Your task to perform on an android device: open the mobile data screen to see how much data has been used Image 0: 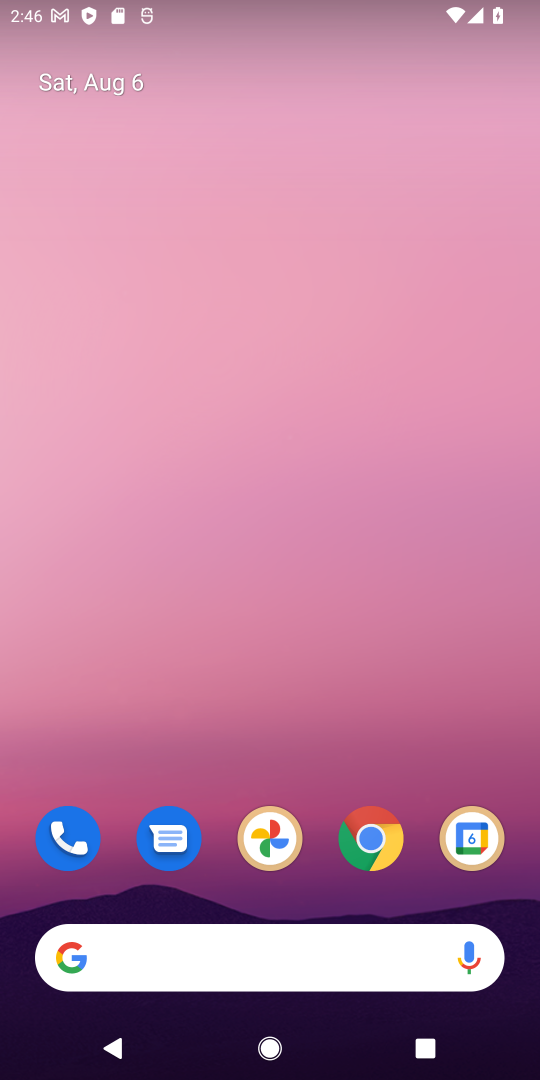
Step 0: drag from (88, 789) to (260, 427)
Your task to perform on an android device: open the mobile data screen to see how much data has been used Image 1: 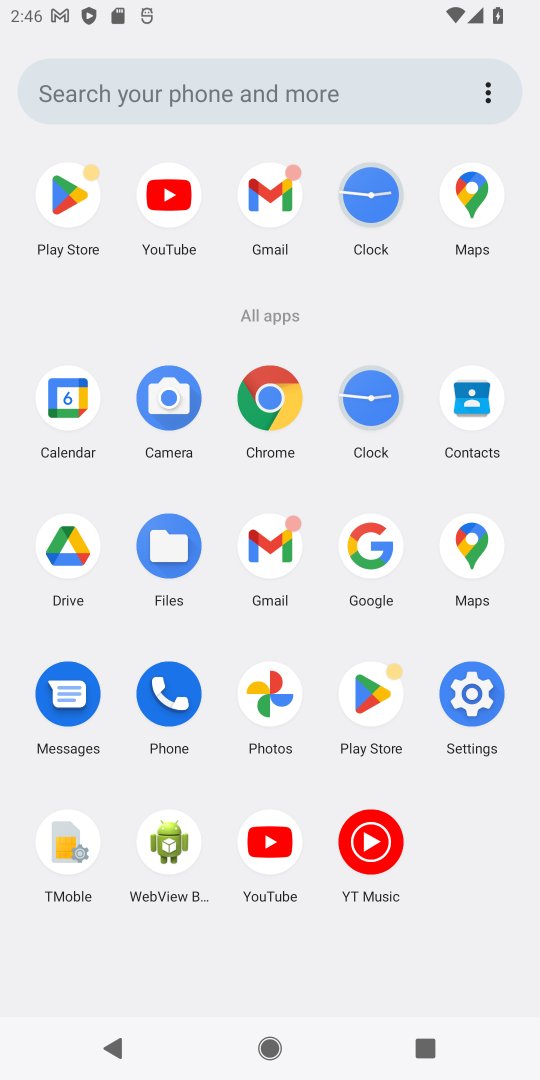
Step 1: click (466, 699)
Your task to perform on an android device: open the mobile data screen to see how much data has been used Image 2: 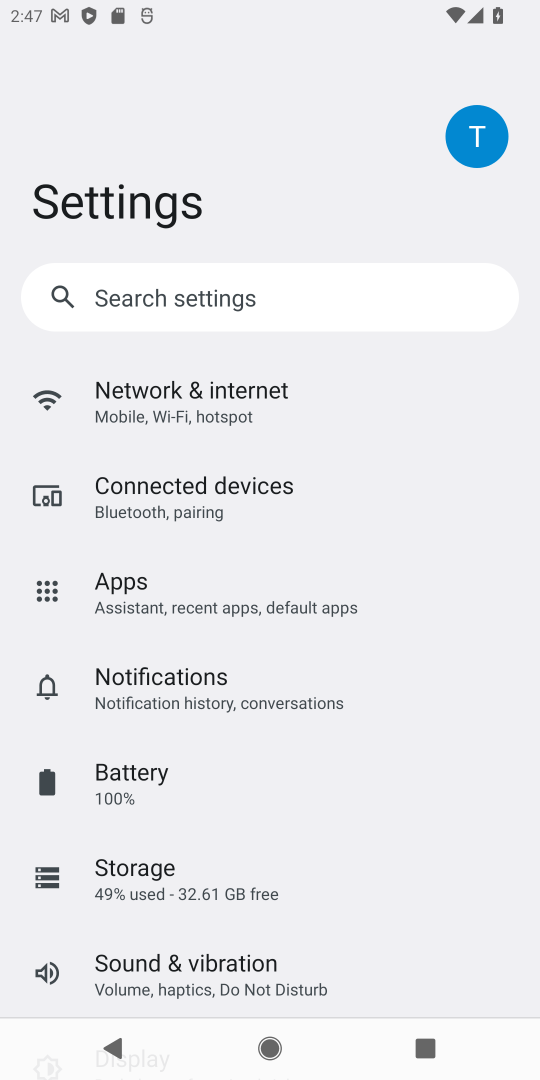
Step 2: click (118, 385)
Your task to perform on an android device: open the mobile data screen to see how much data has been used Image 3: 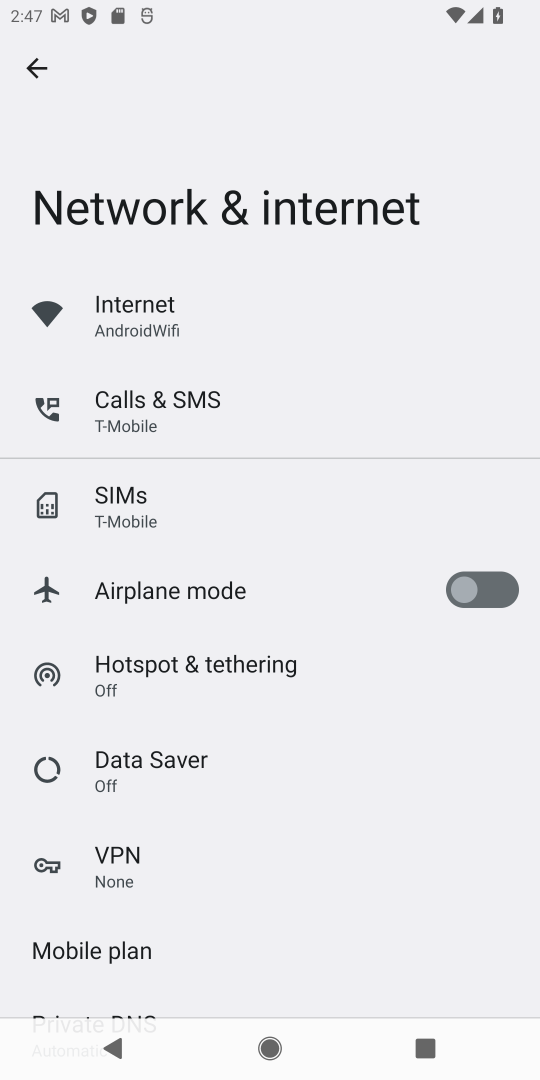
Step 3: click (110, 309)
Your task to perform on an android device: open the mobile data screen to see how much data has been used Image 4: 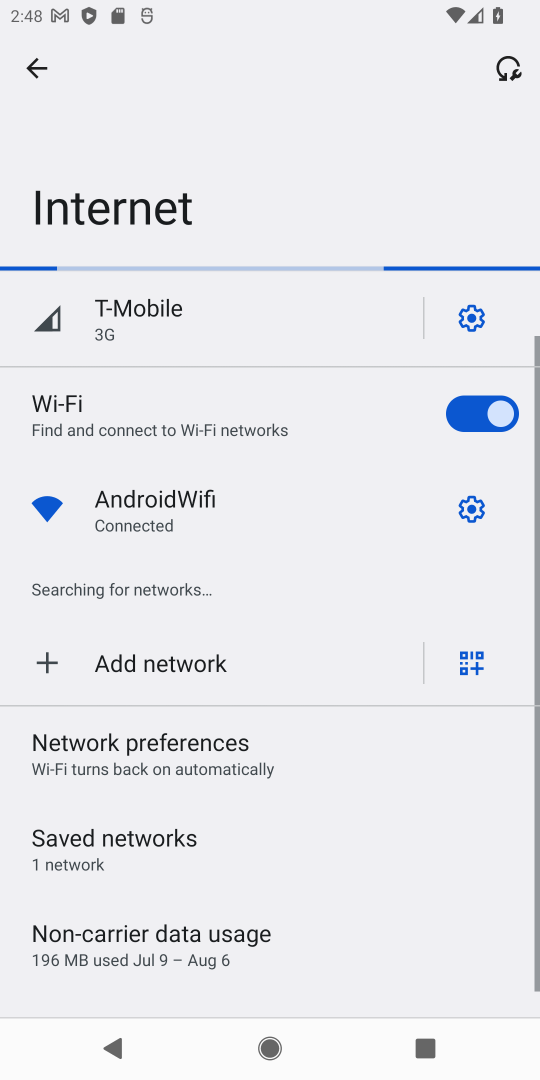
Step 4: click (158, 963)
Your task to perform on an android device: open the mobile data screen to see how much data has been used Image 5: 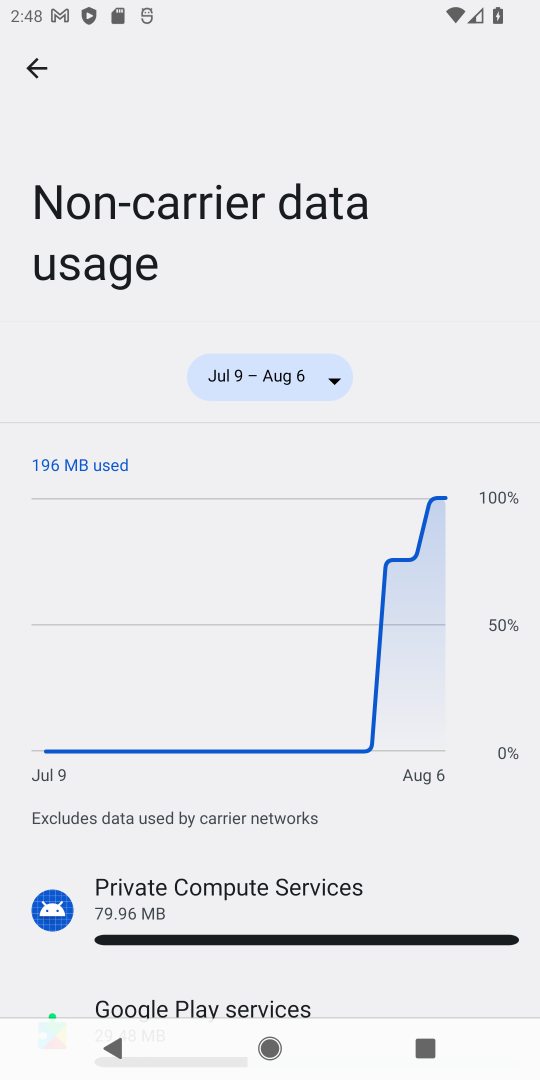
Step 5: task complete